Your task to perform on an android device: Go to location settings Image 0: 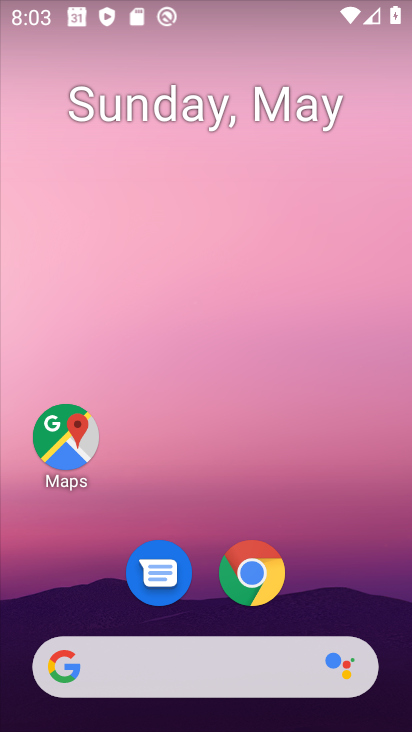
Step 0: drag from (341, 616) to (217, 20)
Your task to perform on an android device: Go to location settings Image 1: 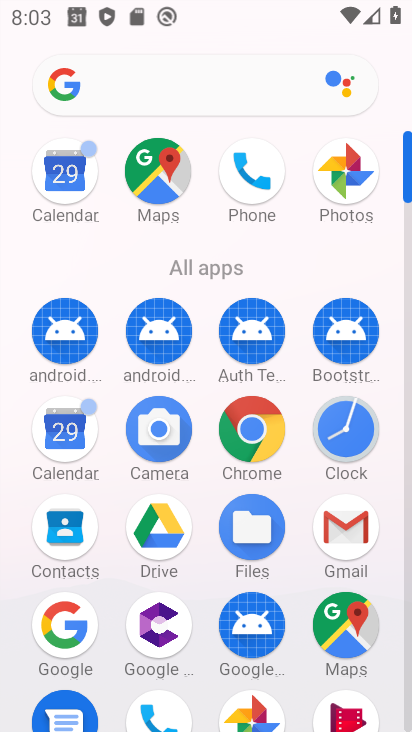
Step 1: click (406, 610)
Your task to perform on an android device: Go to location settings Image 2: 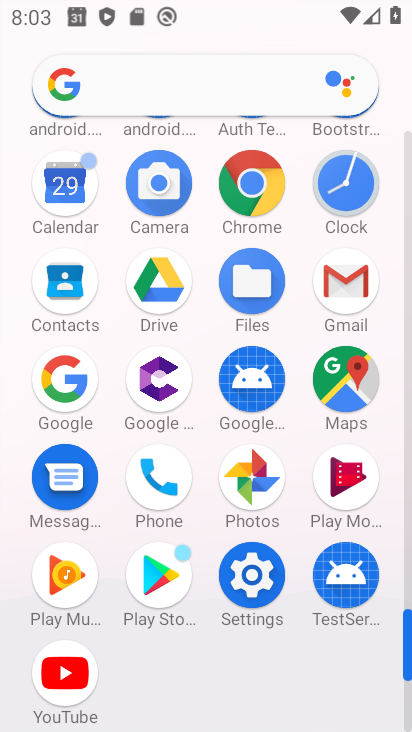
Step 2: click (265, 574)
Your task to perform on an android device: Go to location settings Image 3: 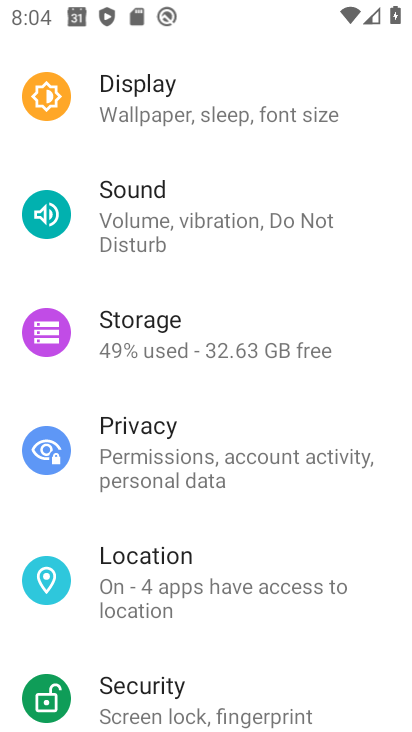
Step 3: click (276, 573)
Your task to perform on an android device: Go to location settings Image 4: 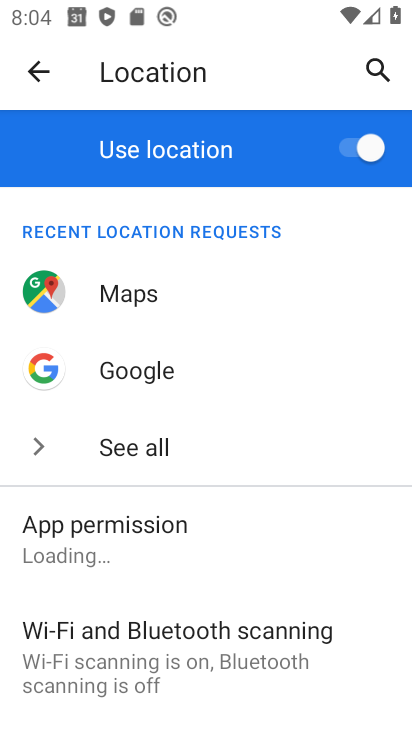
Step 4: task complete